Your task to perform on an android device: delete a single message in the gmail app Image 0: 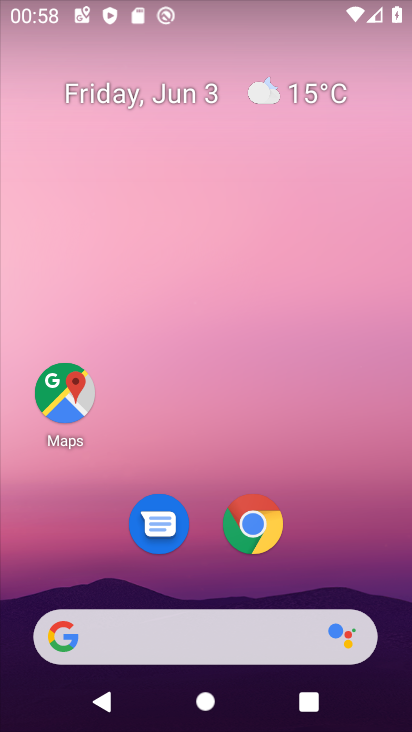
Step 0: drag from (220, 464) to (211, 0)
Your task to perform on an android device: delete a single message in the gmail app Image 1: 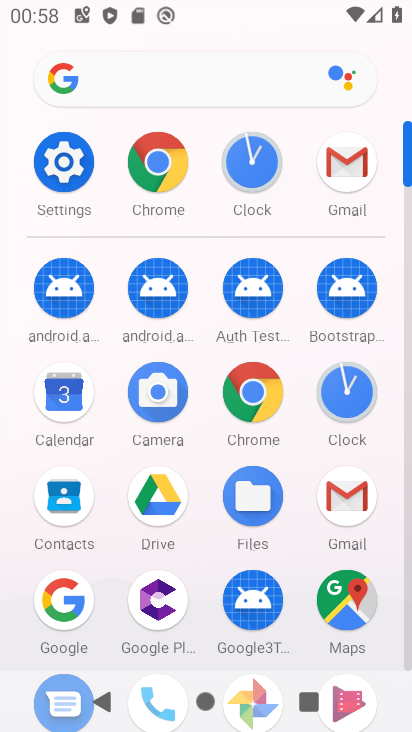
Step 1: click (335, 162)
Your task to perform on an android device: delete a single message in the gmail app Image 2: 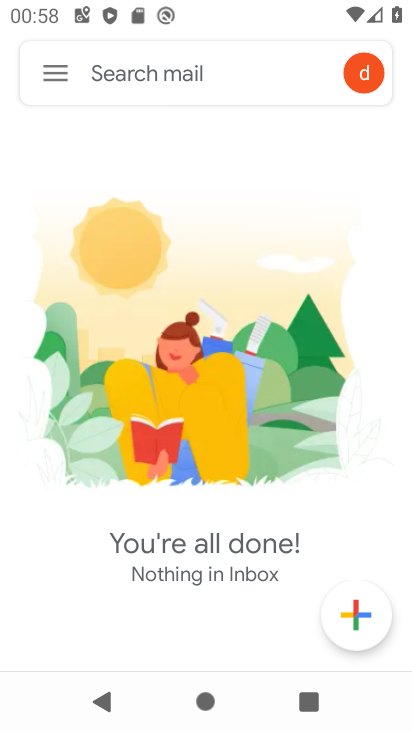
Step 2: click (60, 70)
Your task to perform on an android device: delete a single message in the gmail app Image 3: 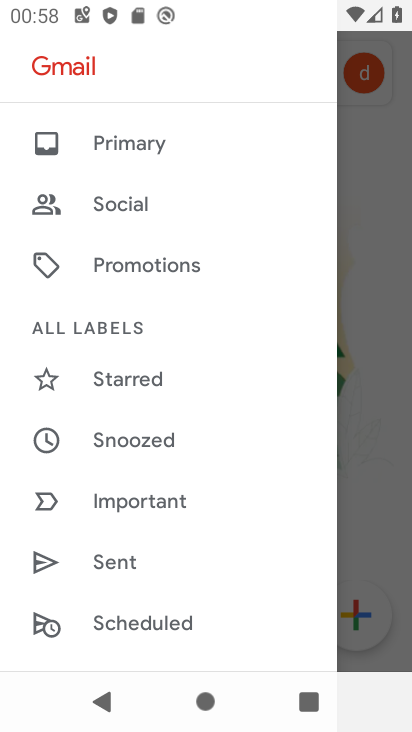
Step 3: drag from (220, 525) to (255, 23)
Your task to perform on an android device: delete a single message in the gmail app Image 4: 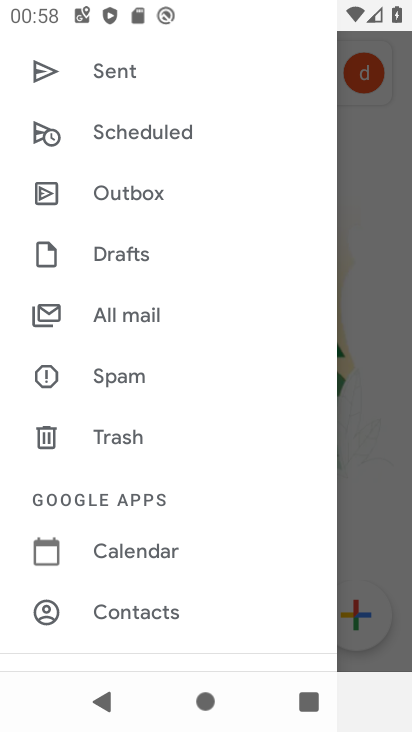
Step 4: click (142, 315)
Your task to perform on an android device: delete a single message in the gmail app Image 5: 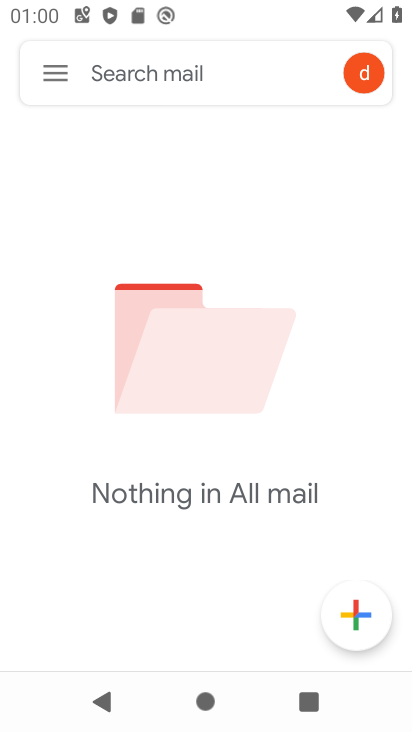
Step 5: task complete